Your task to perform on an android device: refresh tabs in the chrome app Image 0: 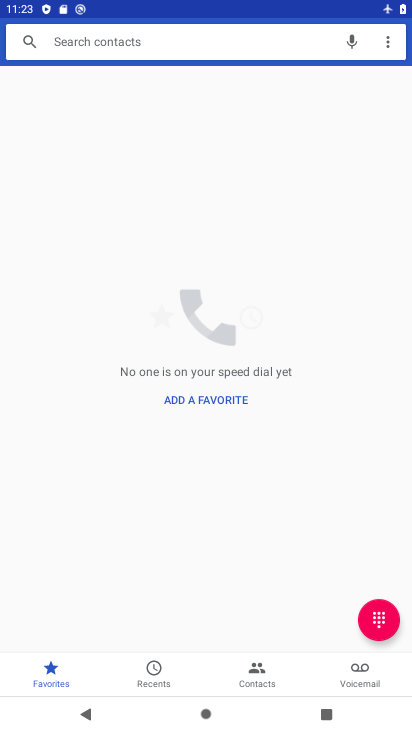
Step 0: press home button
Your task to perform on an android device: refresh tabs in the chrome app Image 1: 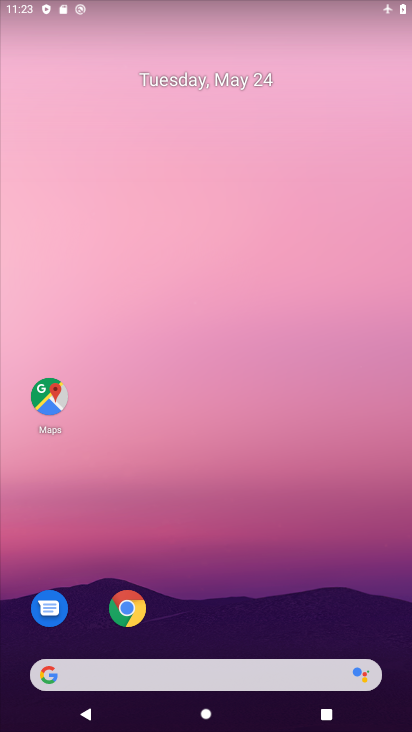
Step 1: click (137, 611)
Your task to perform on an android device: refresh tabs in the chrome app Image 2: 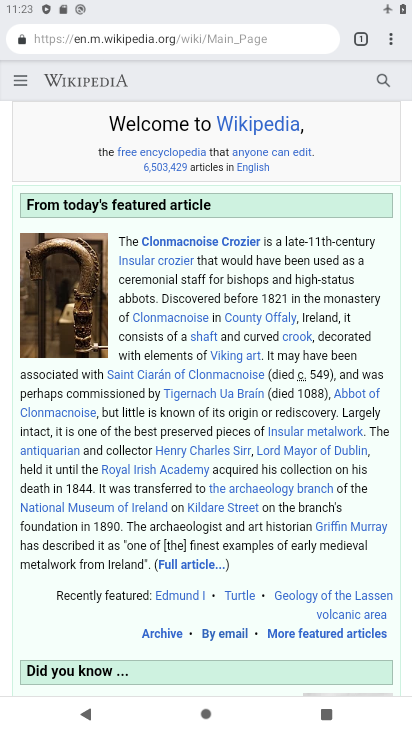
Step 2: click (359, 42)
Your task to perform on an android device: refresh tabs in the chrome app Image 3: 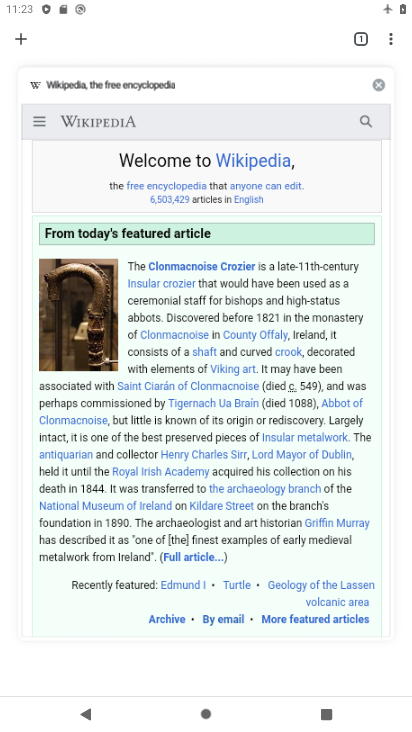
Step 3: click (17, 37)
Your task to perform on an android device: refresh tabs in the chrome app Image 4: 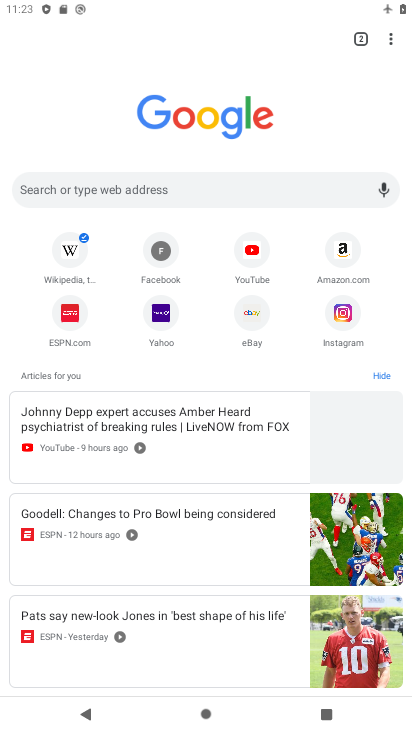
Step 4: click (366, 39)
Your task to perform on an android device: refresh tabs in the chrome app Image 5: 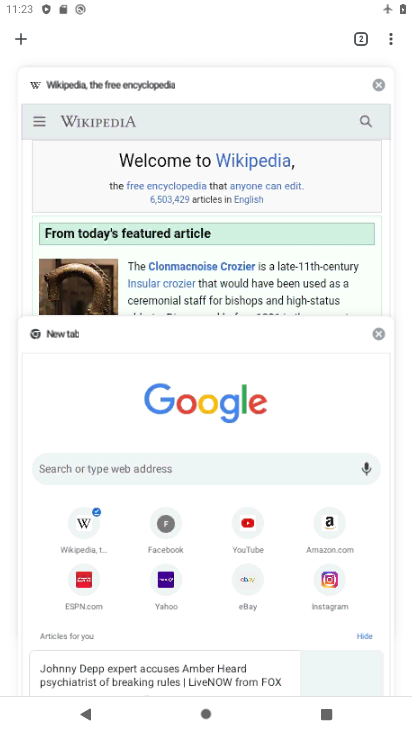
Step 5: click (267, 89)
Your task to perform on an android device: refresh tabs in the chrome app Image 6: 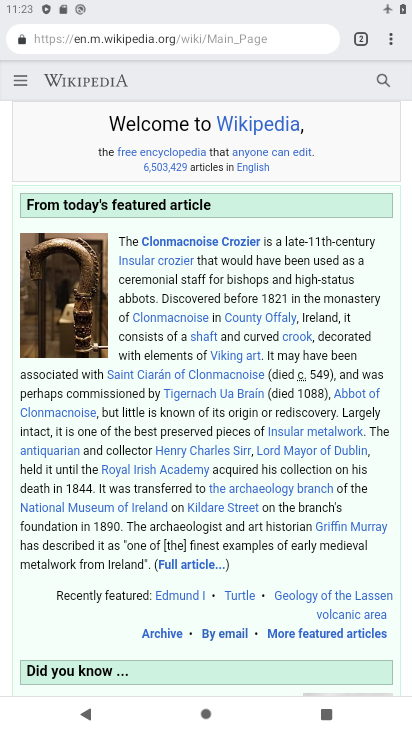
Step 6: click (395, 40)
Your task to perform on an android device: refresh tabs in the chrome app Image 7: 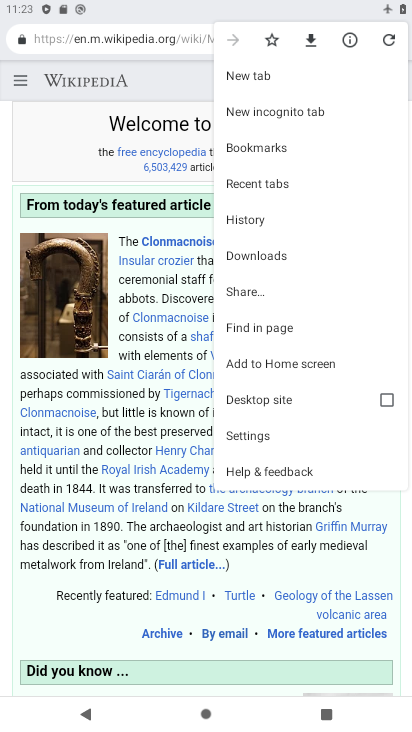
Step 7: click (378, 41)
Your task to perform on an android device: refresh tabs in the chrome app Image 8: 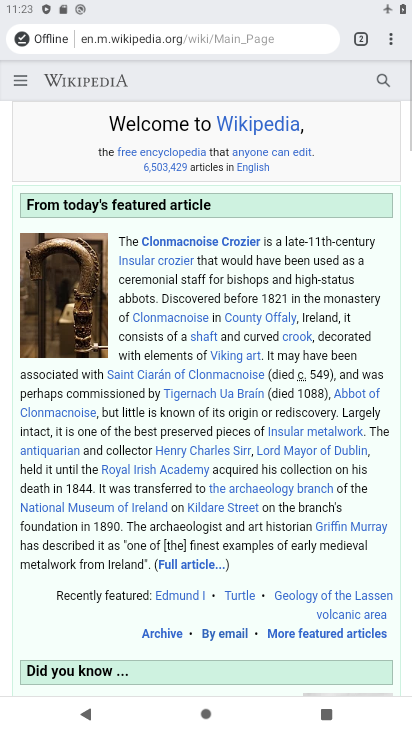
Step 8: task complete